Your task to perform on an android device: delete the emails in spam in the gmail app Image 0: 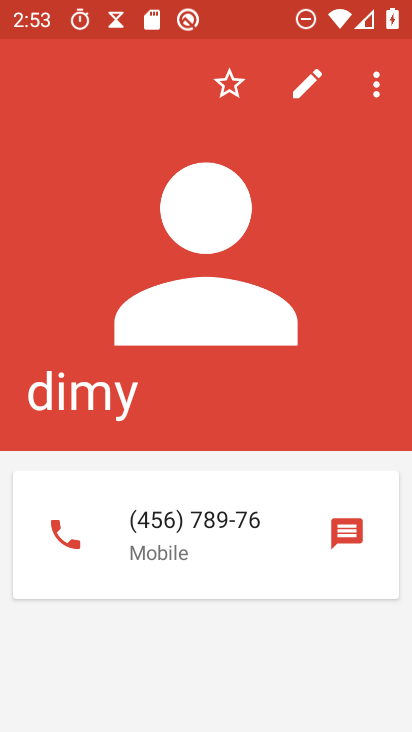
Step 0: press home button
Your task to perform on an android device: delete the emails in spam in the gmail app Image 1: 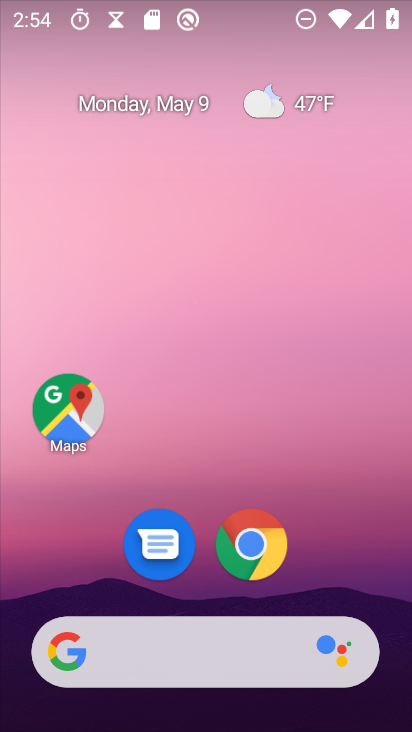
Step 1: drag from (347, 539) to (235, 71)
Your task to perform on an android device: delete the emails in spam in the gmail app Image 2: 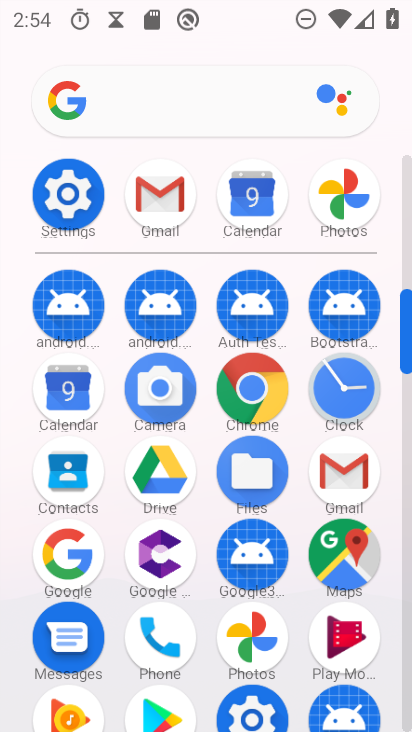
Step 2: click (136, 186)
Your task to perform on an android device: delete the emails in spam in the gmail app Image 3: 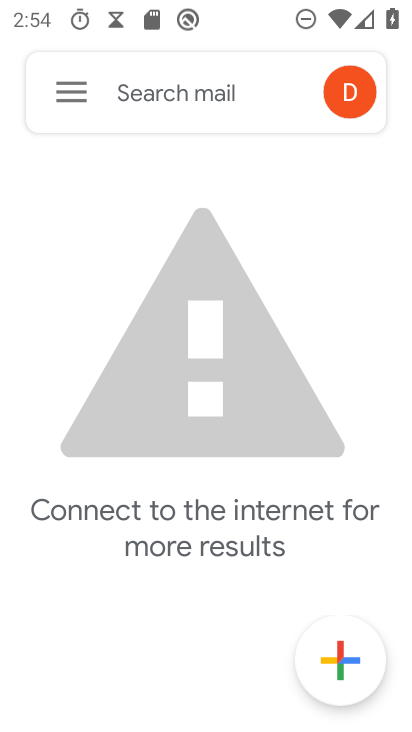
Step 3: click (73, 117)
Your task to perform on an android device: delete the emails in spam in the gmail app Image 4: 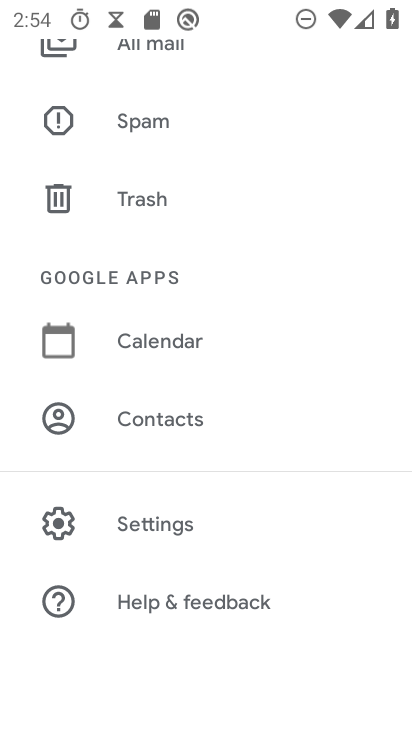
Step 4: drag from (212, 219) to (276, 511)
Your task to perform on an android device: delete the emails in spam in the gmail app Image 5: 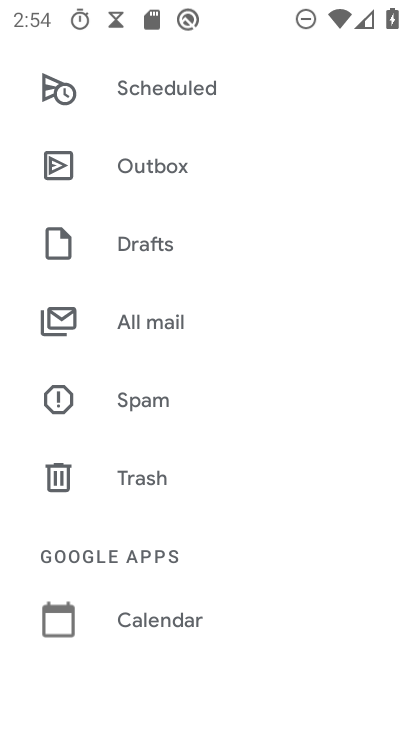
Step 5: click (142, 403)
Your task to perform on an android device: delete the emails in spam in the gmail app Image 6: 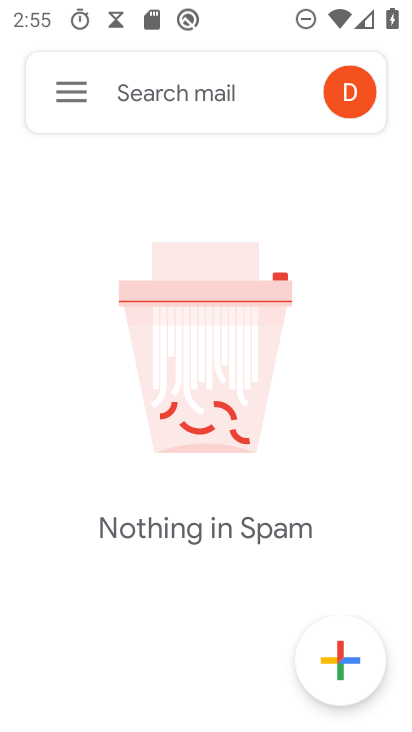
Step 6: task complete